Your task to perform on an android device: Open calendar and show me the second week of next month Image 0: 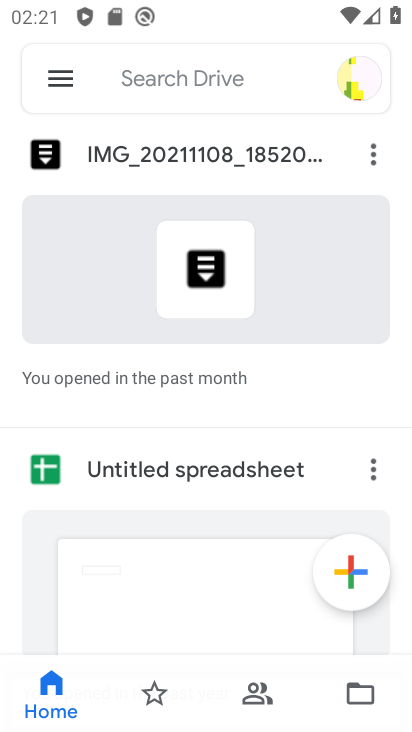
Step 0: press home button
Your task to perform on an android device: Open calendar and show me the second week of next month Image 1: 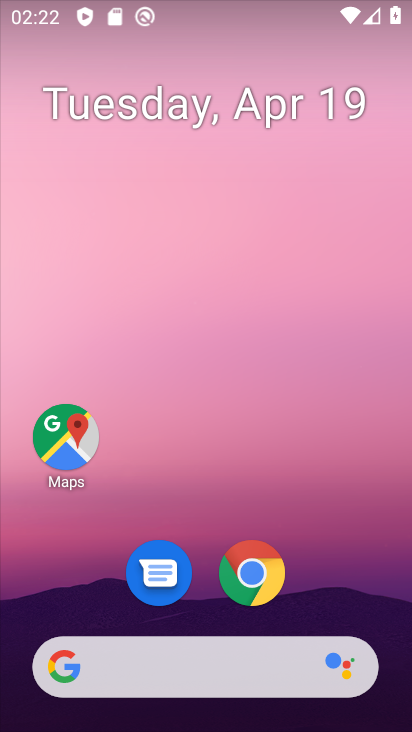
Step 1: drag from (377, 584) to (379, 51)
Your task to perform on an android device: Open calendar and show me the second week of next month Image 2: 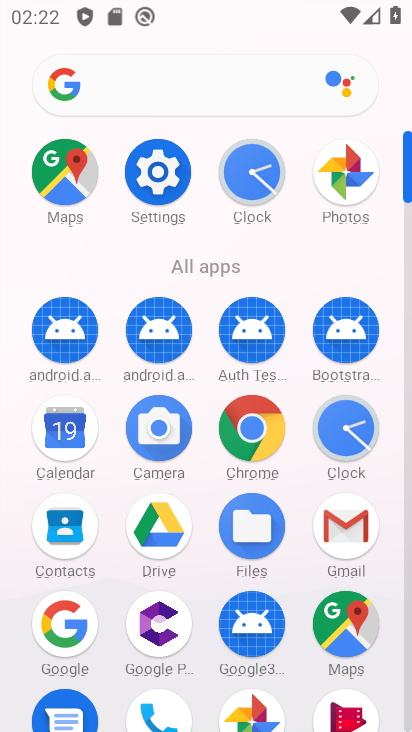
Step 2: click (65, 438)
Your task to perform on an android device: Open calendar and show me the second week of next month Image 3: 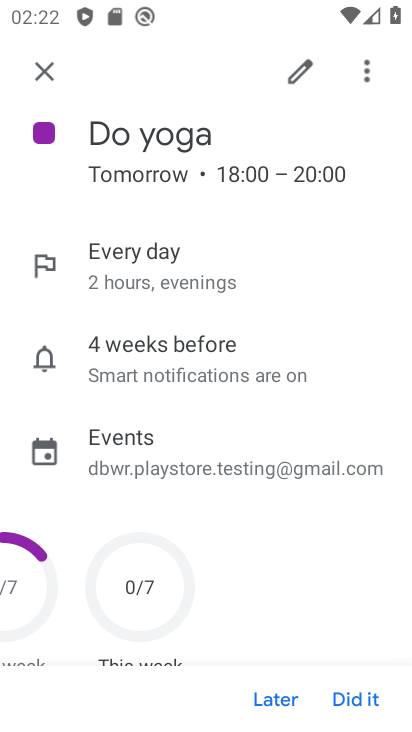
Step 3: click (42, 72)
Your task to perform on an android device: Open calendar and show me the second week of next month Image 4: 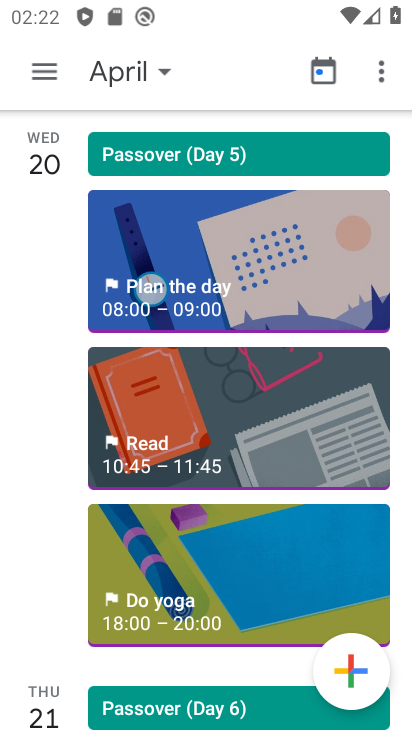
Step 4: click (160, 72)
Your task to perform on an android device: Open calendar and show me the second week of next month Image 5: 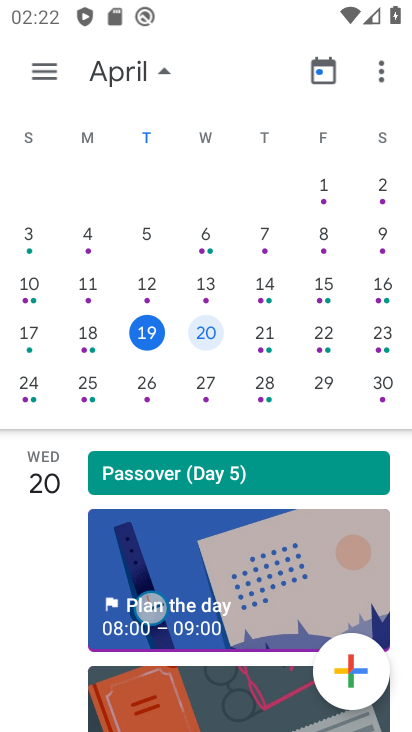
Step 5: drag from (321, 322) to (5, 292)
Your task to perform on an android device: Open calendar and show me the second week of next month Image 6: 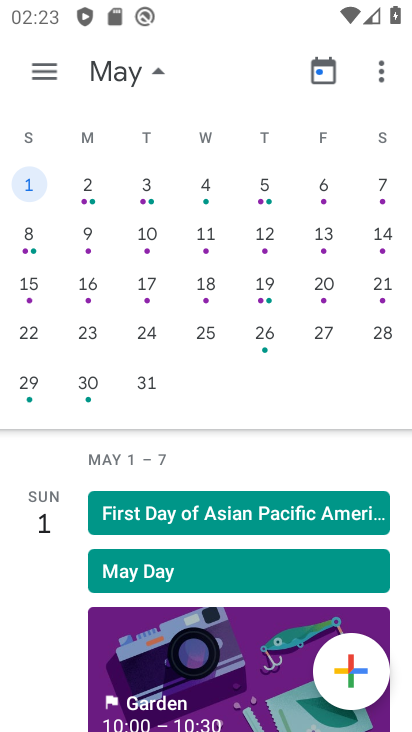
Step 6: click (30, 75)
Your task to perform on an android device: Open calendar and show me the second week of next month Image 7: 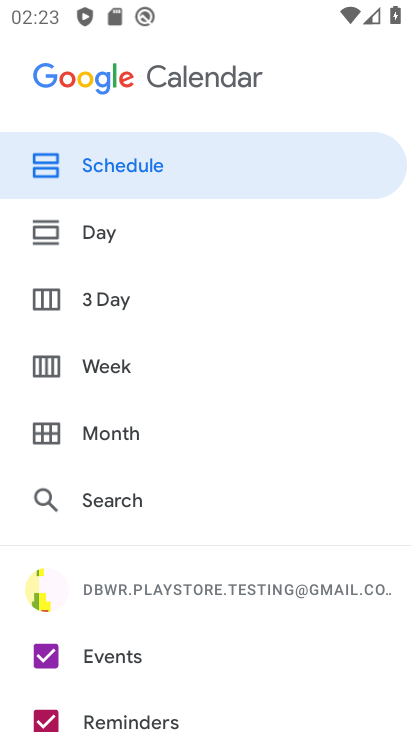
Step 7: click (94, 375)
Your task to perform on an android device: Open calendar and show me the second week of next month Image 8: 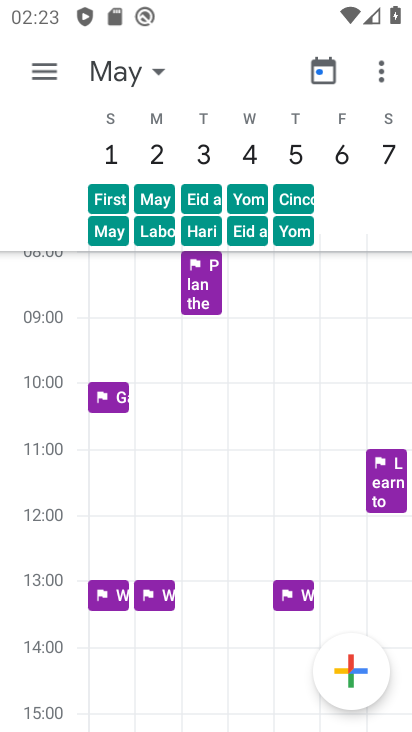
Step 8: task complete